Your task to perform on an android device: Go to Yahoo.com Image 0: 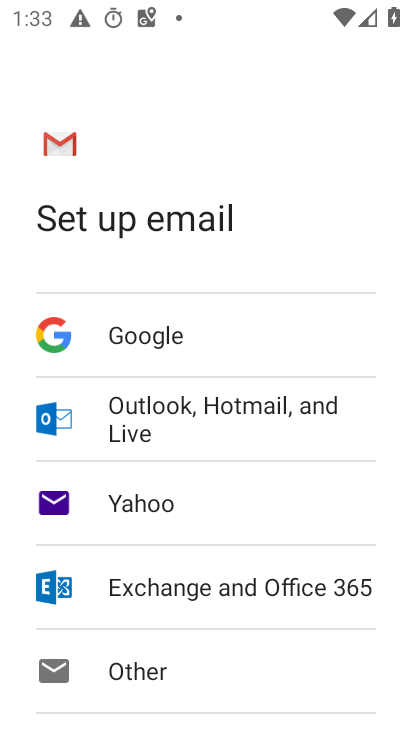
Step 0: press home button
Your task to perform on an android device: Go to Yahoo.com Image 1: 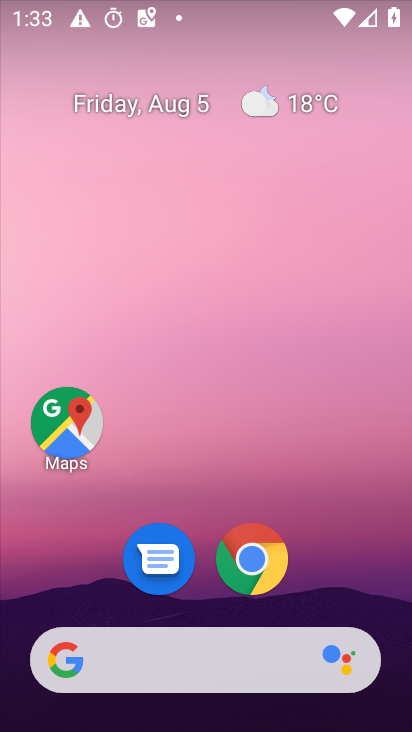
Step 1: click (144, 660)
Your task to perform on an android device: Go to Yahoo.com Image 2: 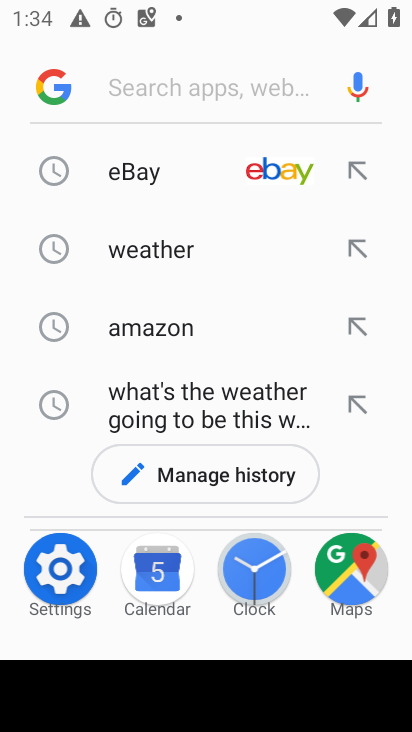
Step 2: type "Yahoo.com"
Your task to perform on an android device: Go to Yahoo.com Image 3: 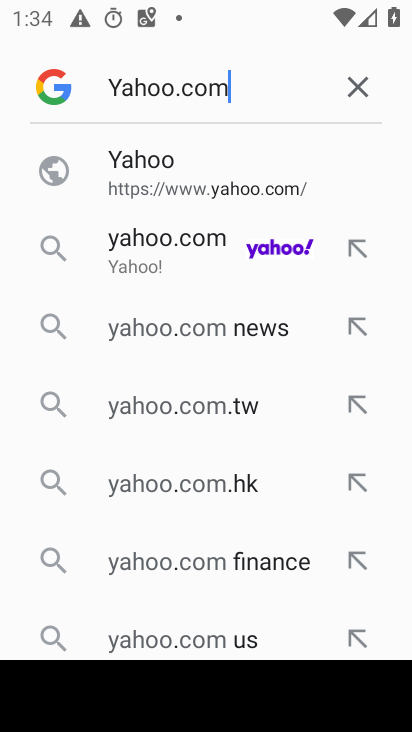
Step 3: click (217, 236)
Your task to perform on an android device: Go to Yahoo.com Image 4: 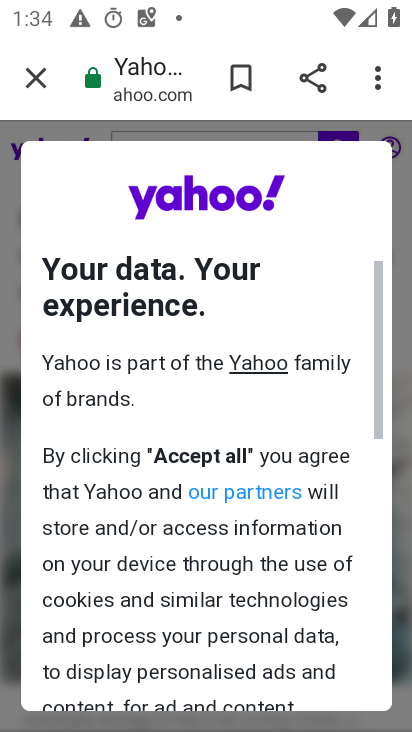
Step 4: task complete